Your task to perform on an android device: Open the calendar app, open the side menu, and click the "Day" option Image 0: 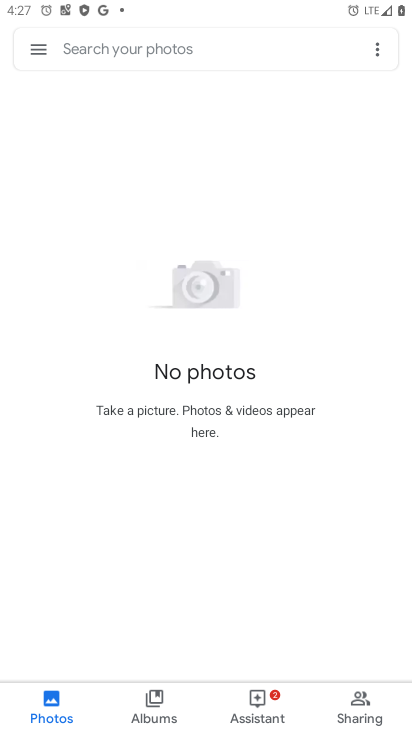
Step 0: press home button
Your task to perform on an android device: Open the calendar app, open the side menu, and click the "Day" option Image 1: 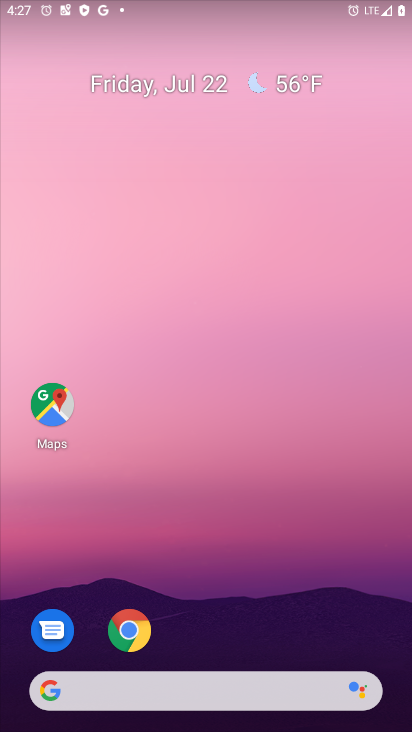
Step 1: drag from (212, 673) to (170, 153)
Your task to perform on an android device: Open the calendar app, open the side menu, and click the "Day" option Image 2: 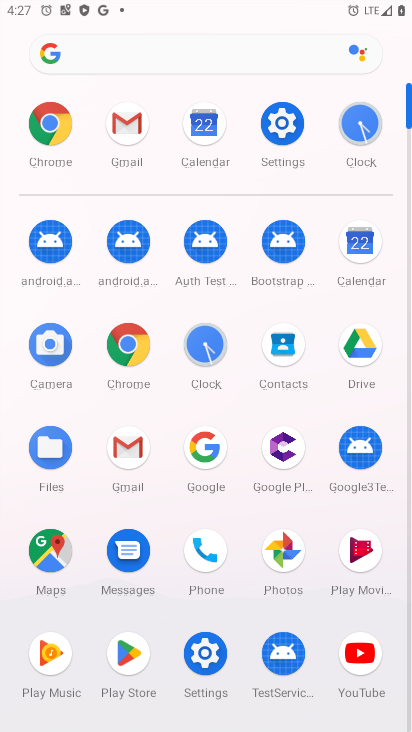
Step 2: click (347, 268)
Your task to perform on an android device: Open the calendar app, open the side menu, and click the "Day" option Image 3: 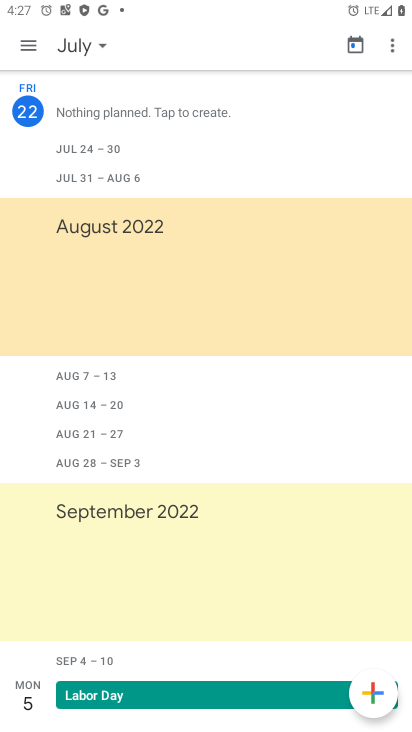
Step 3: click (28, 45)
Your task to perform on an android device: Open the calendar app, open the side menu, and click the "Day" option Image 4: 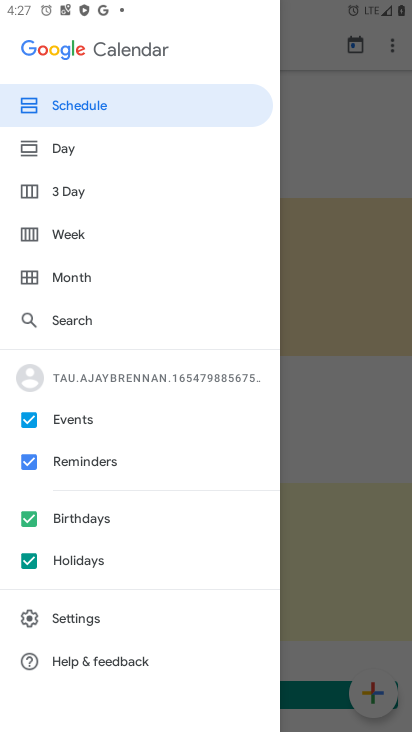
Step 4: click (48, 146)
Your task to perform on an android device: Open the calendar app, open the side menu, and click the "Day" option Image 5: 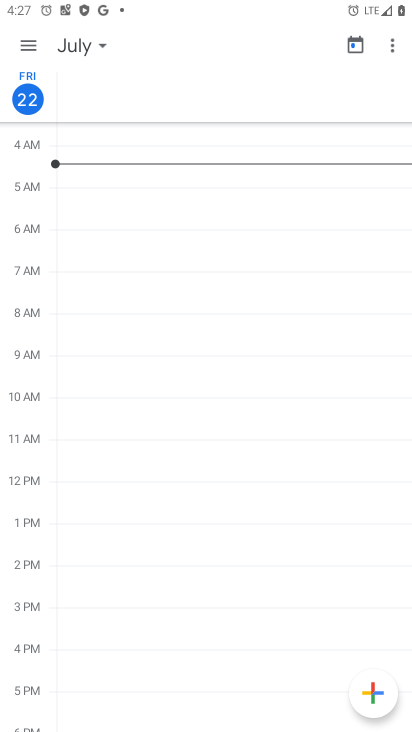
Step 5: task complete